Your task to perform on an android device: delete the emails in spam in the gmail app Image 0: 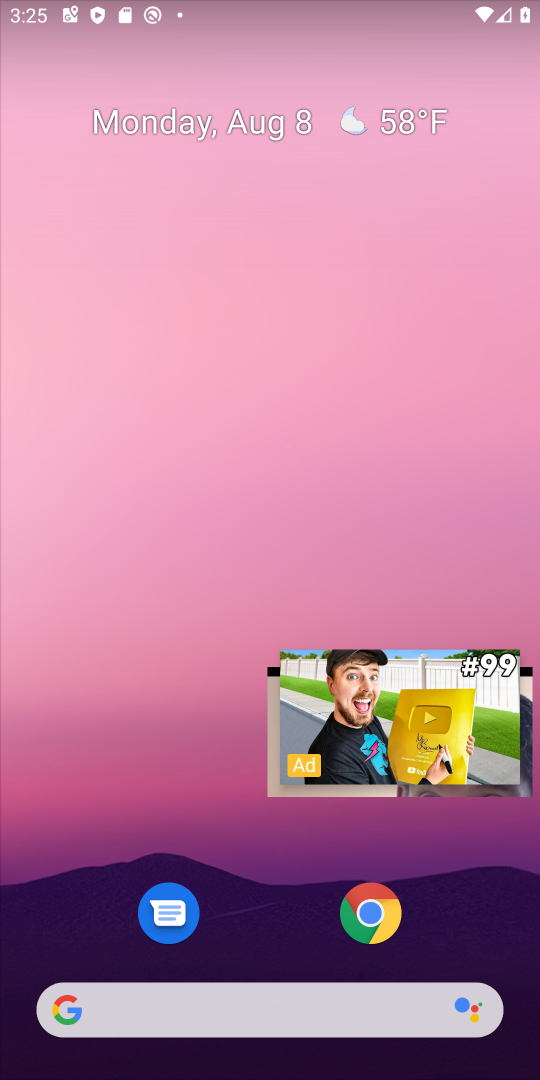
Step 0: press home button
Your task to perform on an android device: delete the emails in spam in the gmail app Image 1: 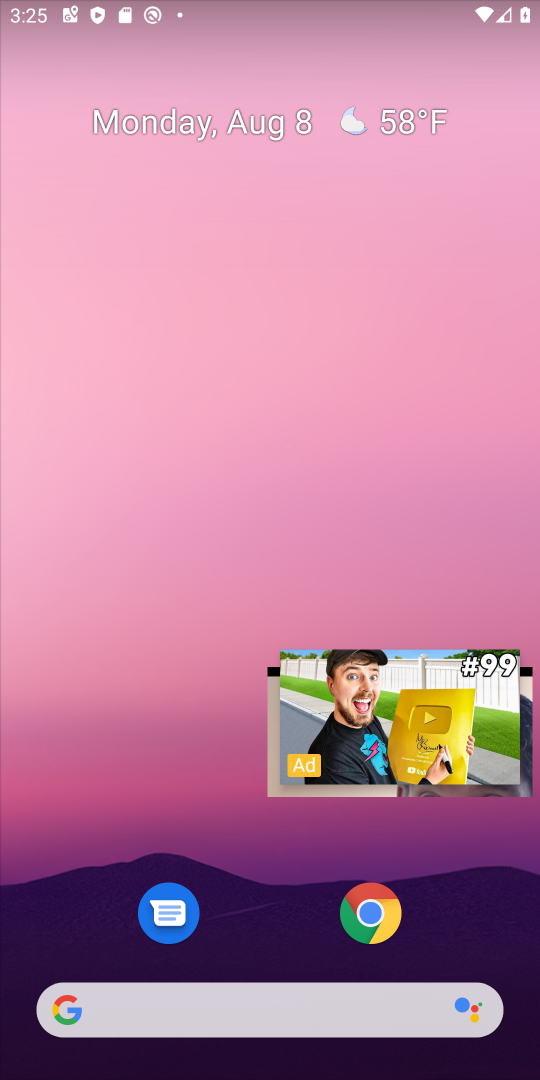
Step 1: drag from (84, 904) to (99, 285)
Your task to perform on an android device: delete the emails in spam in the gmail app Image 2: 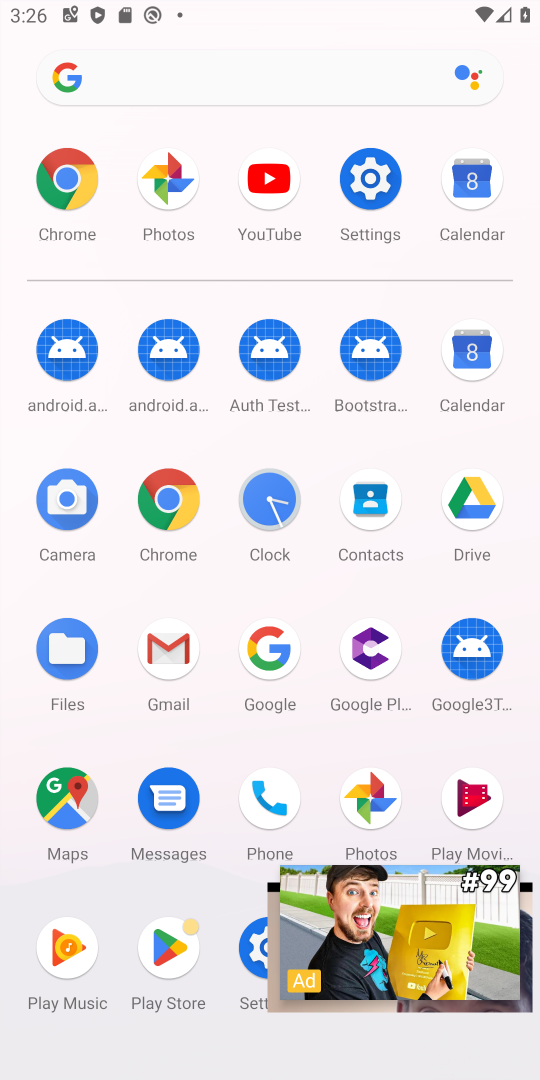
Step 2: click (164, 652)
Your task to perform on an android device: delete the emails in spam in the gmail app Image 3: 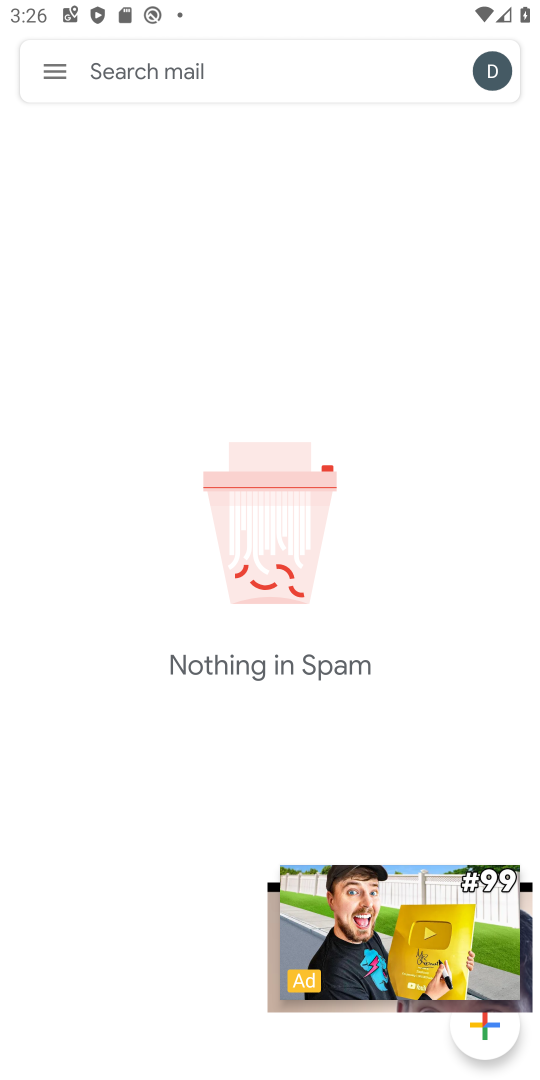
Step 3: task complete